Your task to perform on an android device: check the backup settings in the google photos Image 0: 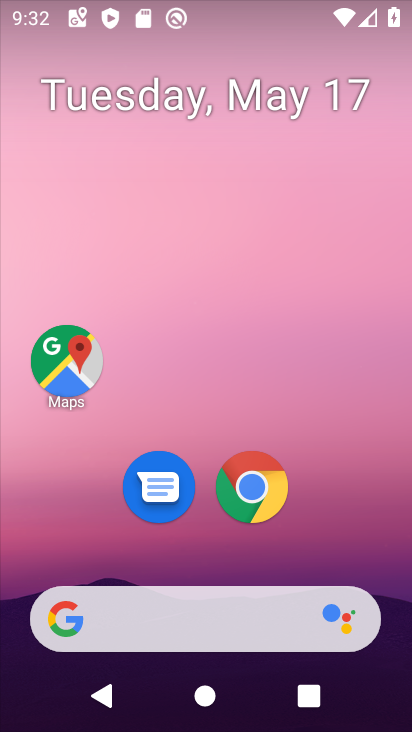
Step 0: drag from (266, 644) to (187, 312)
Your task to perform on an android device: check the backup settings in the google photos Image 1: 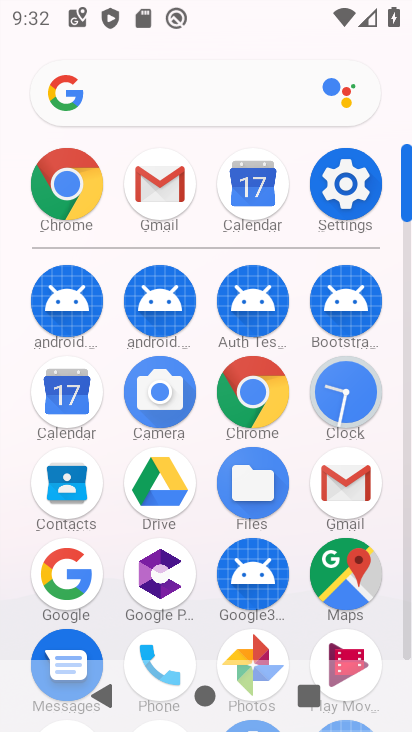
Step 1: click (265, 635)
Your task to perform on an android device: check the backup settings in the google photos Image 2: 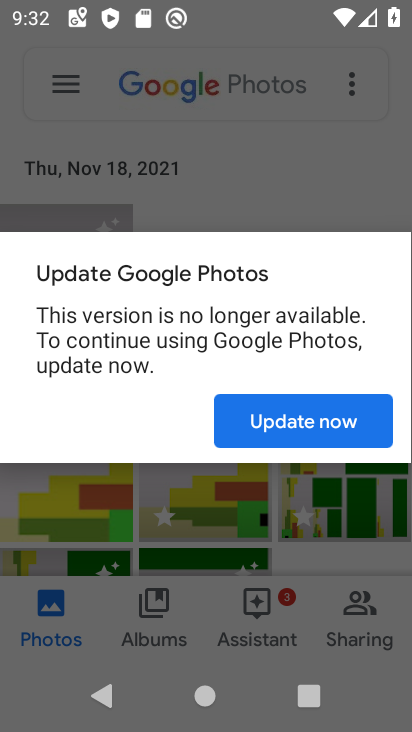
Step 2: click (298, 430)
Your task to perform on an android device: check the backup settings in the google photos Image 3: 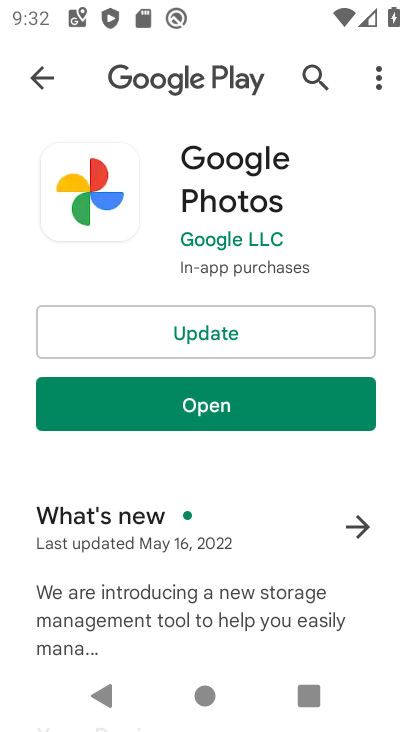
Step 3: click (267, 397)
Your task to perform on an android device: check the backup settings in the google photos Image 4: 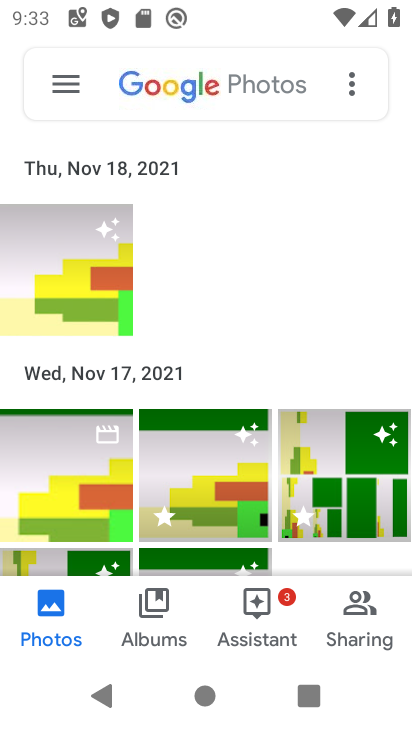
Step 4: click (58, 99)
Your task to perform on an android device: check the backup settings in the google photos Image 5: 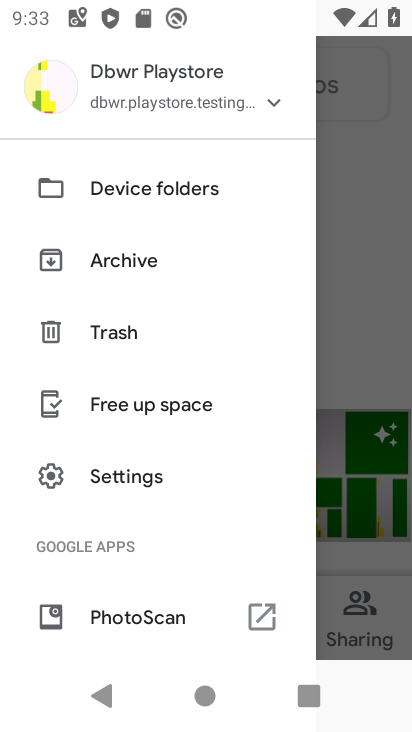
Step 5: click (125, 479)
Your task to perform on an android device: check the backup settings in the google photos Image 6: 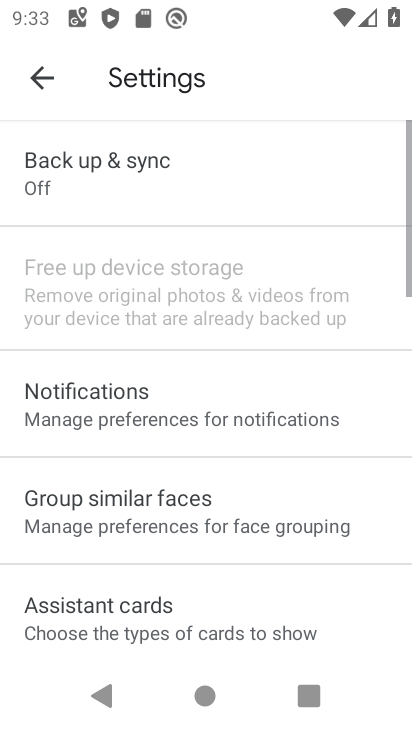
Step 6: click (130, 160)
Your task to perform on an android device: check the backup settings in the google photos Image 7: 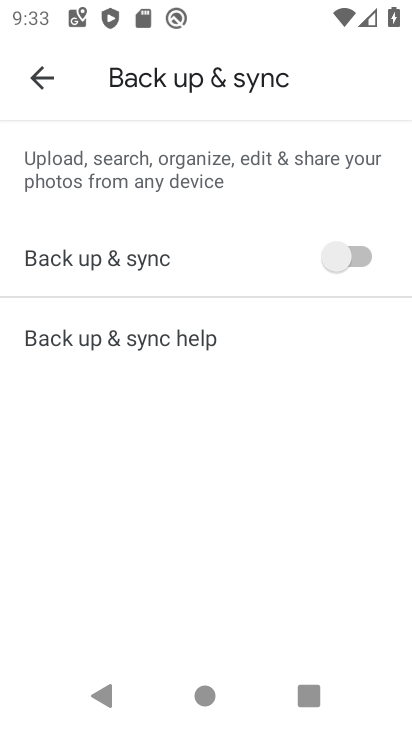
Step 7: task complete